Your task to perform on an android device: View the shopping cart on costco. Add "razer nari" to the cart on costco Image 0: 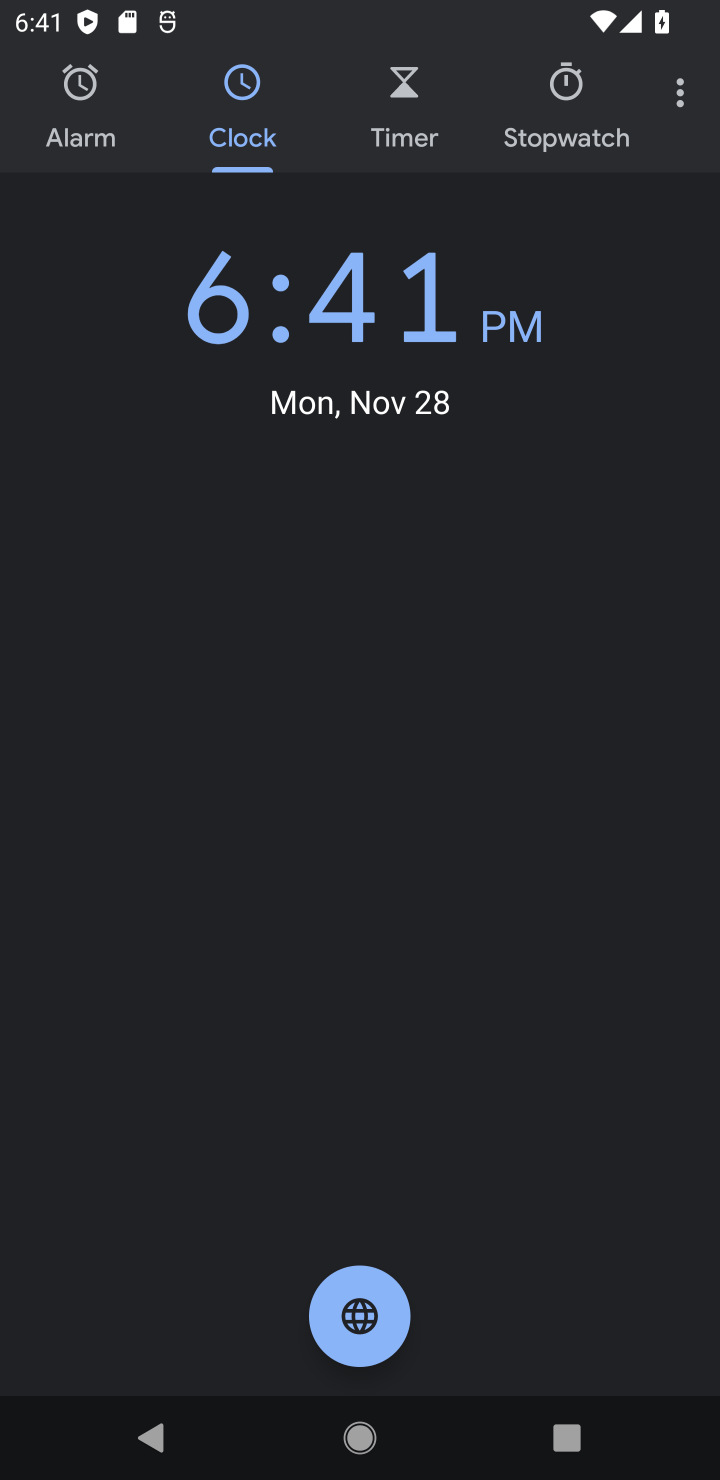
Step 0: press home button
Your task to perform on an android device: View the shopping cart on costco. Add "razer nari" to the cart on costco Image 1: 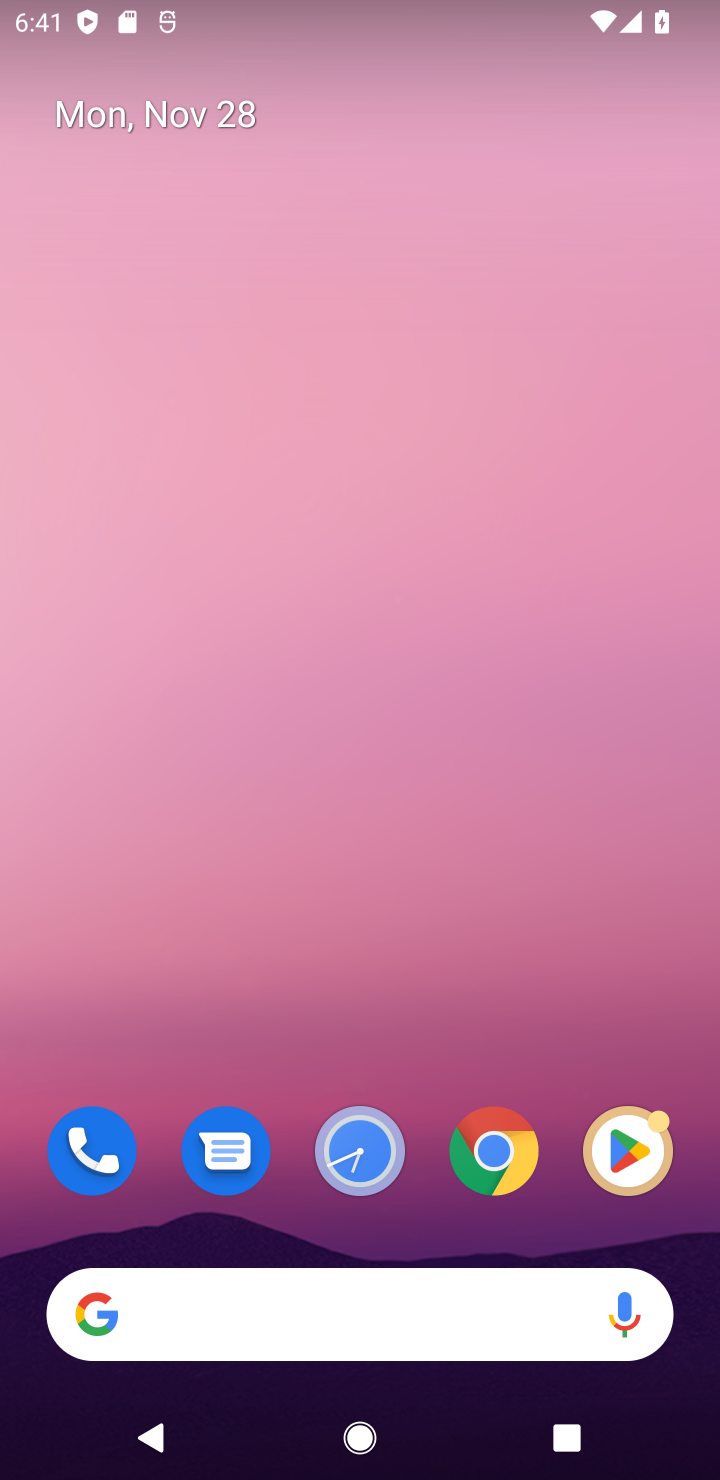
Step 1: click (300, 1306)
Your task to perform on an android device: View the shopping cart on costco. Add "razer nari" to the cart on costco Image 2: 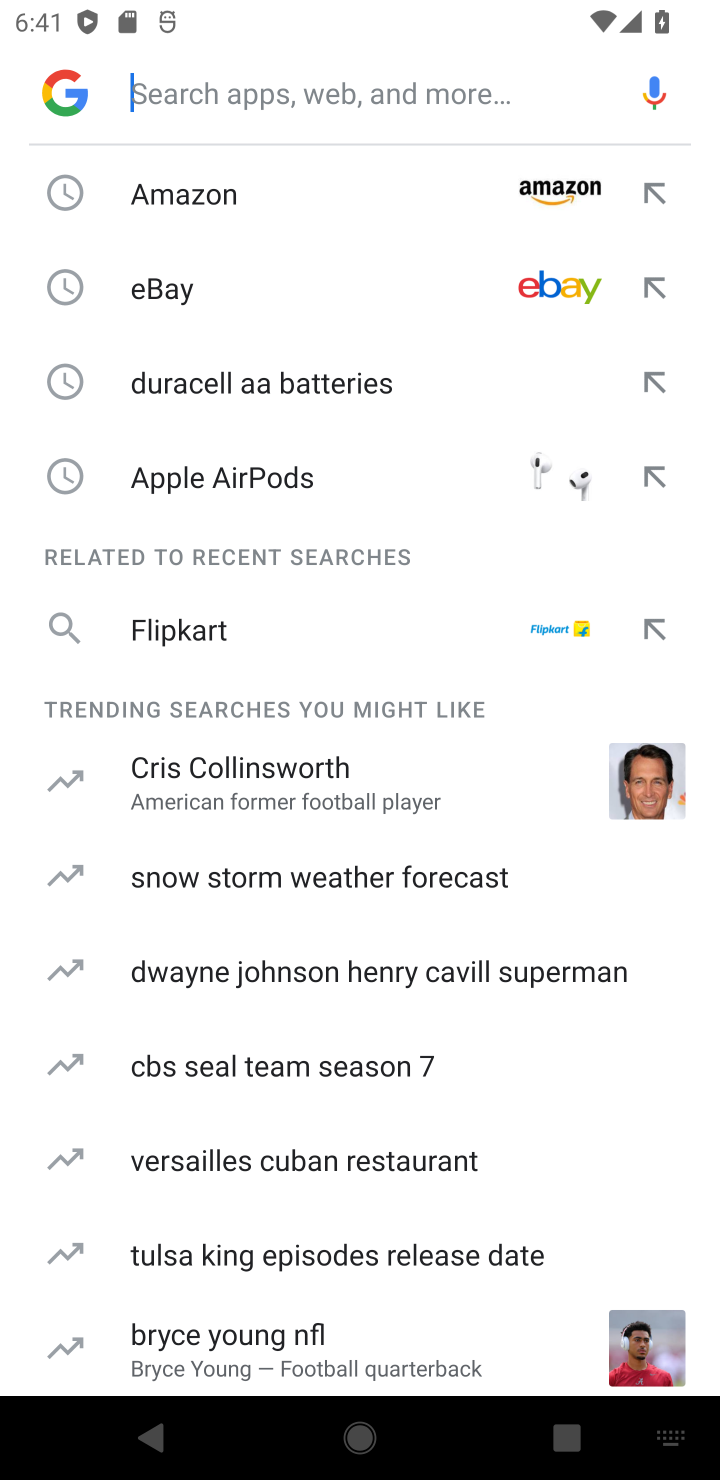
Step 2: type "costco.com"
Your task to perform on an android device: View the shopping cart on costco. Add "razer nari" to the cart on costco Image 3: 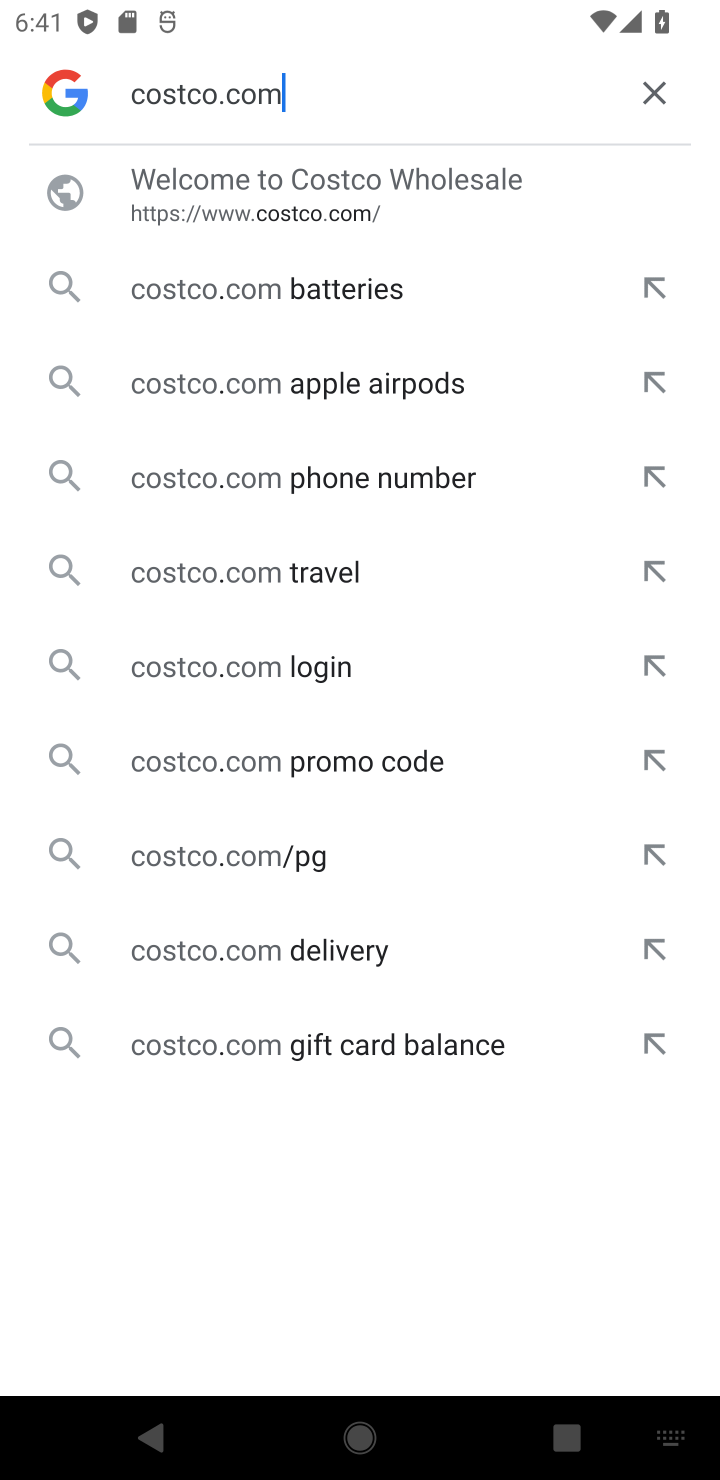
Step 3: click (296, 226)
Your task to perform on an android device: View the shopping cart on costco. Add "razer nari" to the cart on costco Image 4: 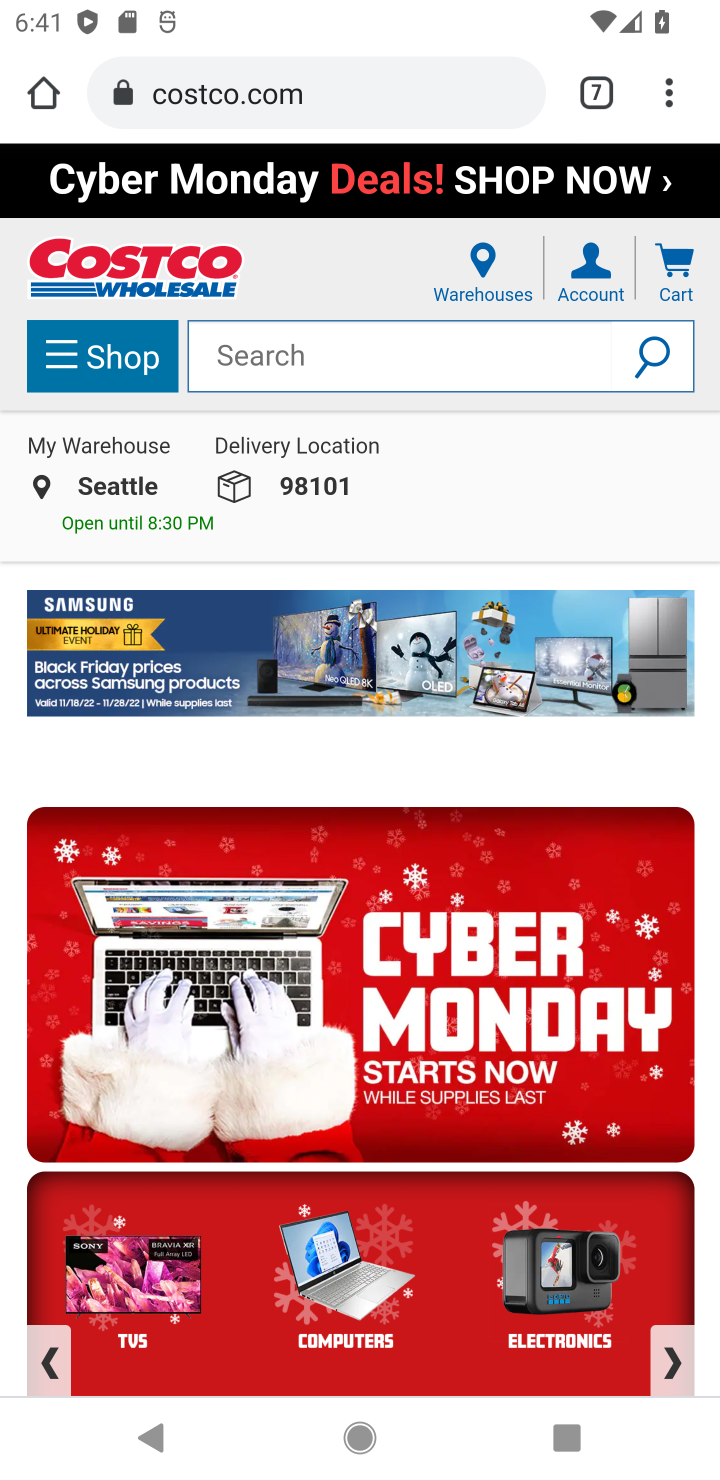
Step 4: click (221, 342)
Your task to perform on an android device: View the shopping cart on costco. Add "razer nari" to the cart on costco Image 5: 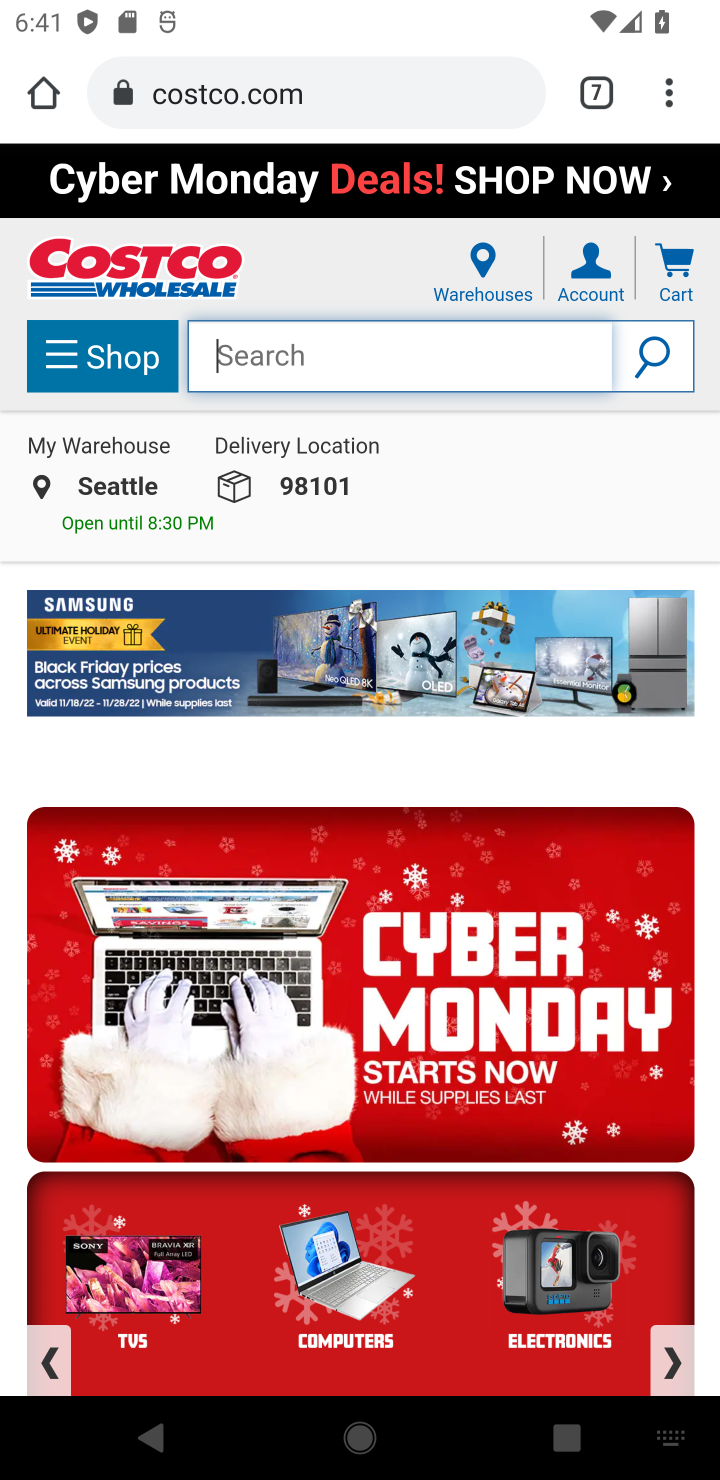
Step 5: type "razer nari"
Your task to perform on an android device: View the shopping cart on costco. Add "razer nari" to the cart on costco Image 6: 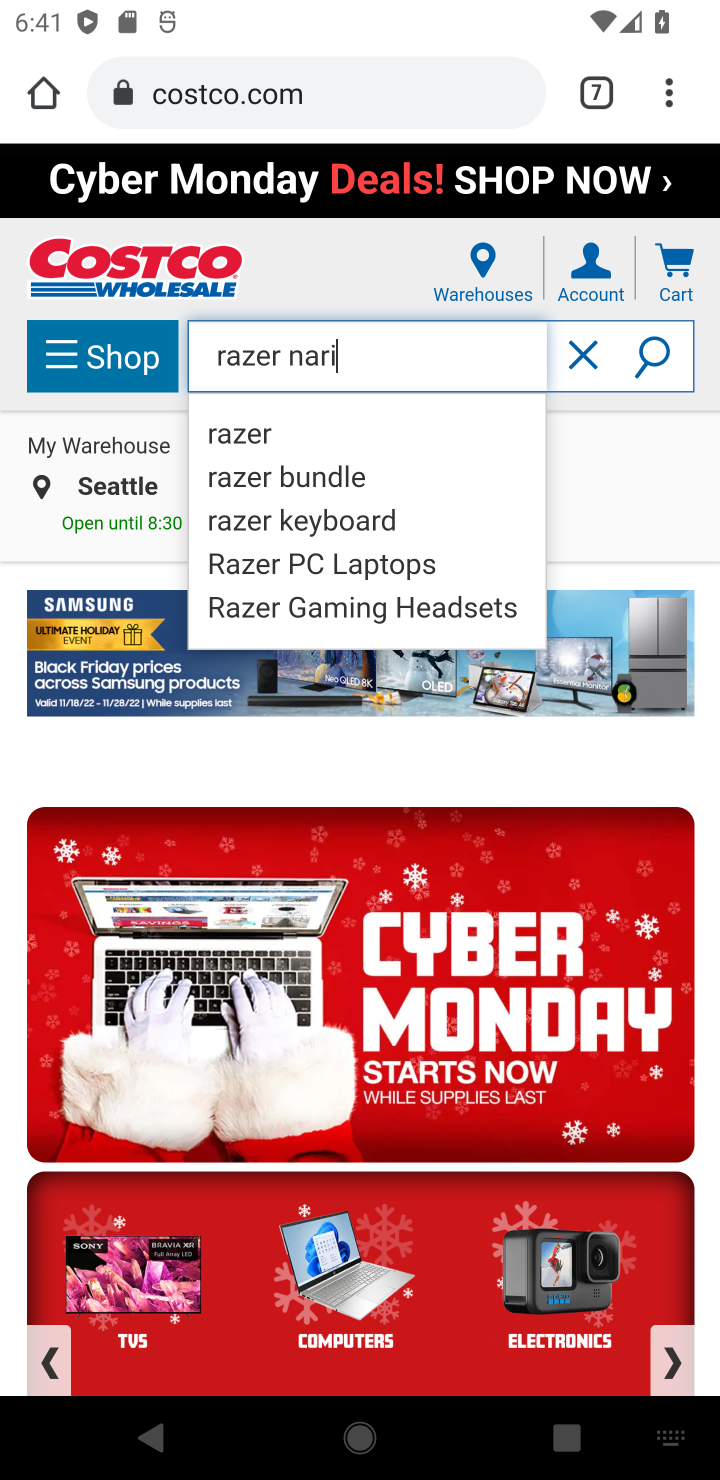
Step 6: click (644, 366)
Your task to perform on an android device: View the shopping cart on costco. Add "razer nari" to the cart on costco Image 7: 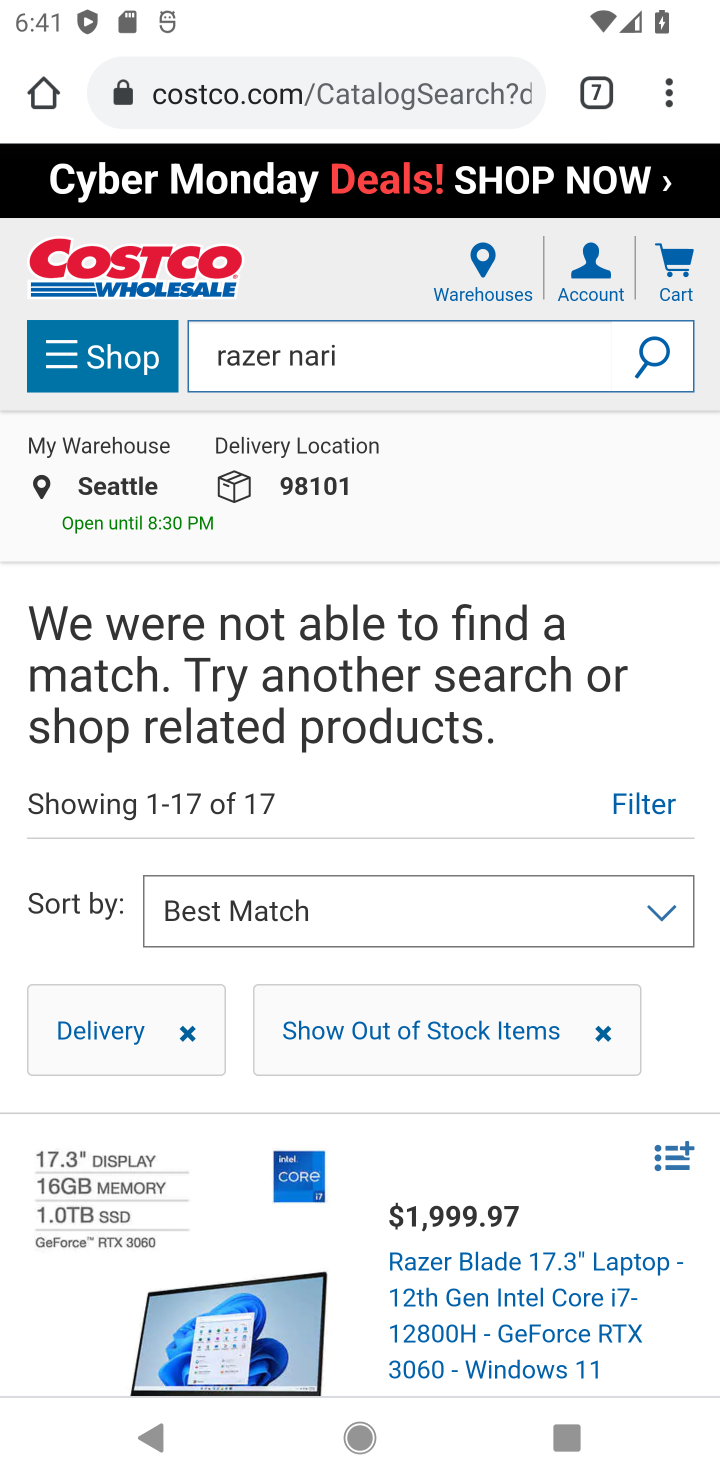
Step 7: drag from (367, 1151) to (428, 541)
Your task to perform on an android device: View the shopping cart on costco. Add "razer nari" to the cart on costco Image 8: 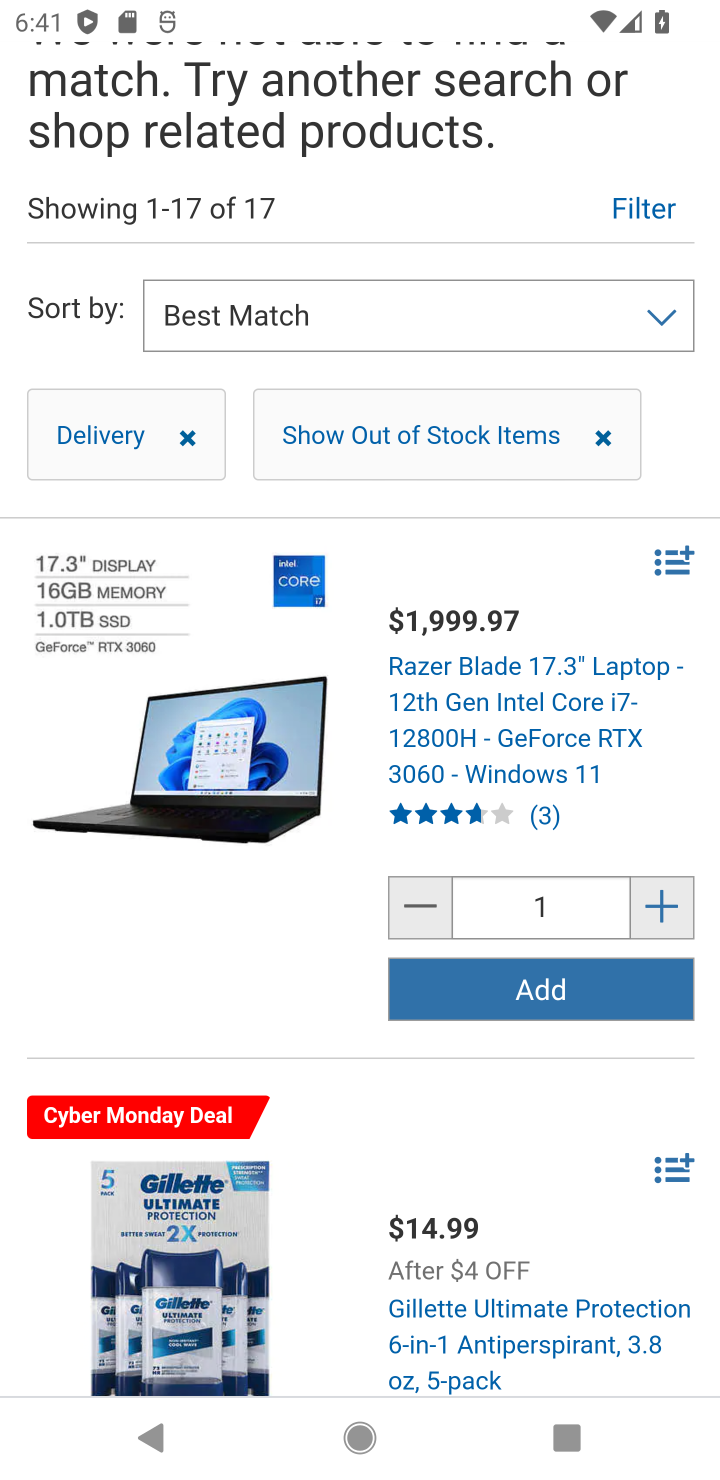
Step 8: click (588, 978)
Your task to perform on an android device: View the shopping cart on costco. Add "razer nari" to the cart on costco Image 9: 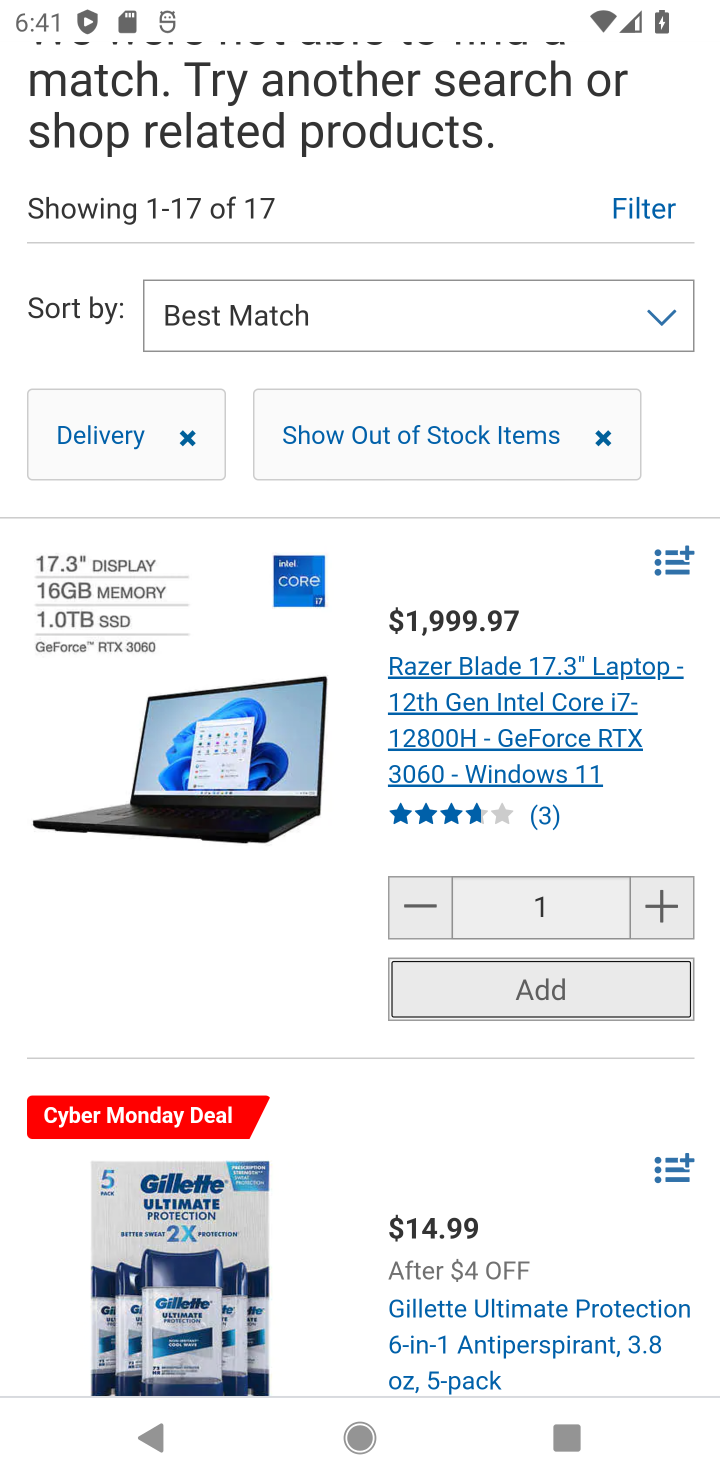
Step 9: task complete